Your task to perform on an android device: Open Yahoo.com Image 0: 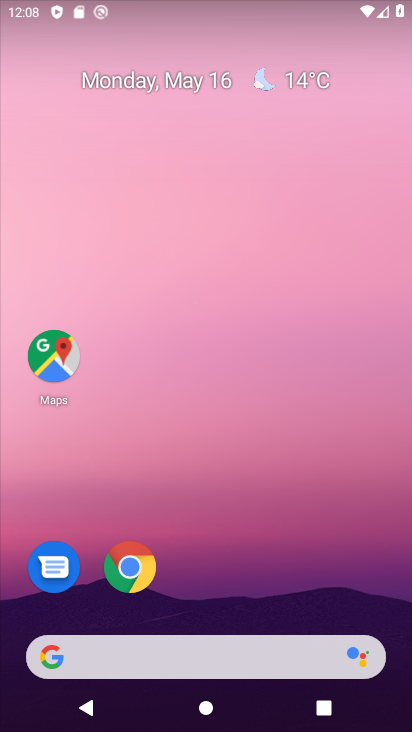
Step 0: click (121, 568)
Your task to perform on an android device: Open Yahoo.com Image 1: 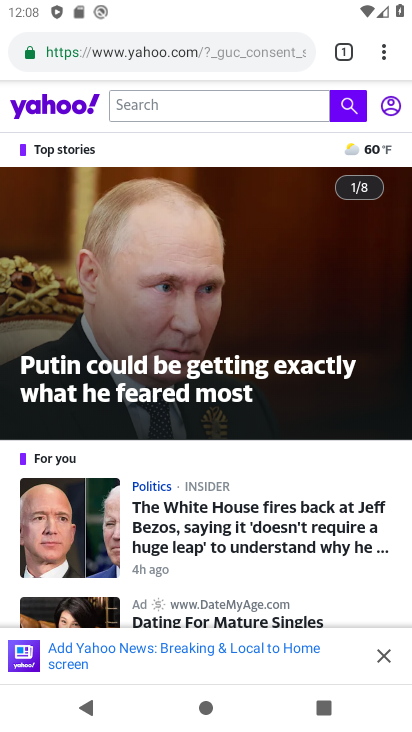
Step 1: task complete